Your task to perform on an android device: turn pop-ups off in chrome Image 0: 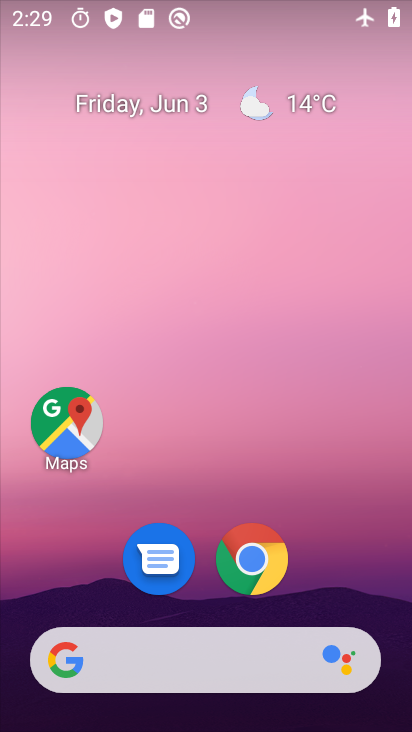
Step 0: click (254, 580)
Your task to perform on an android device: turn pop-ups off in chrome Image 1: 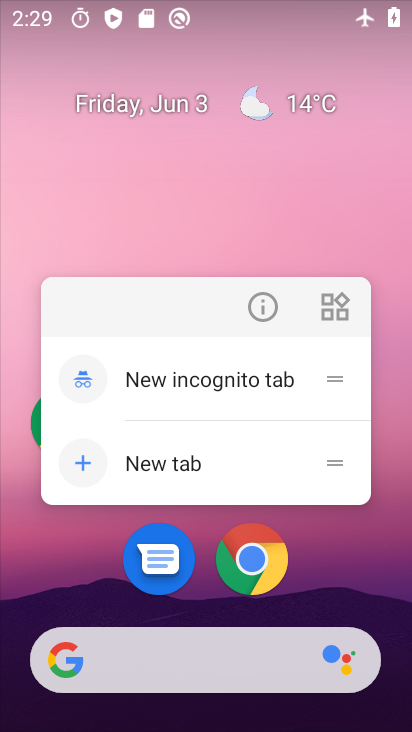
Step 1: click (245, 550)
Your task to perform on an android device: turn pop-ups off in chrome Image 2: 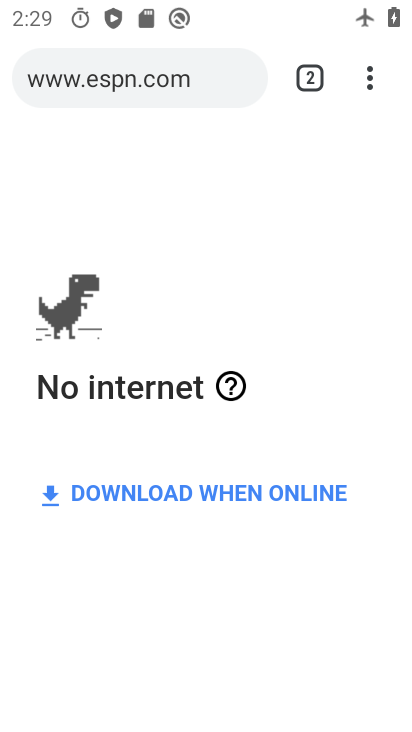
Step 2: drag from (370, 77) to (79, 613)
Your task to perform on an android device: turn pop-ups off in chrome Image 3: 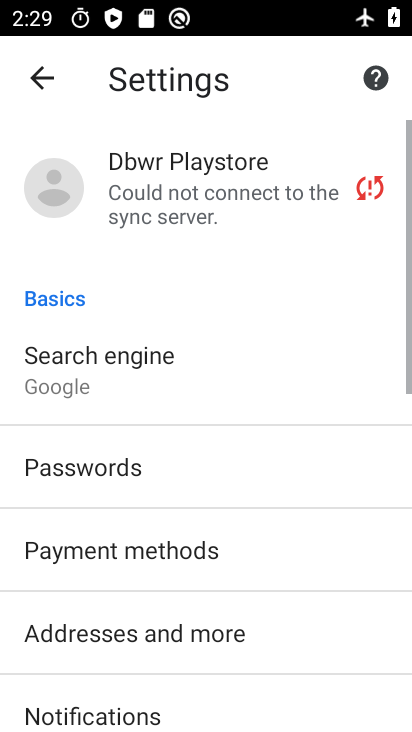
Step 3: drag from (88, 618) to (38, 68)
Your task to perform on an android device: turn pop-ups off in chrome Image 4: 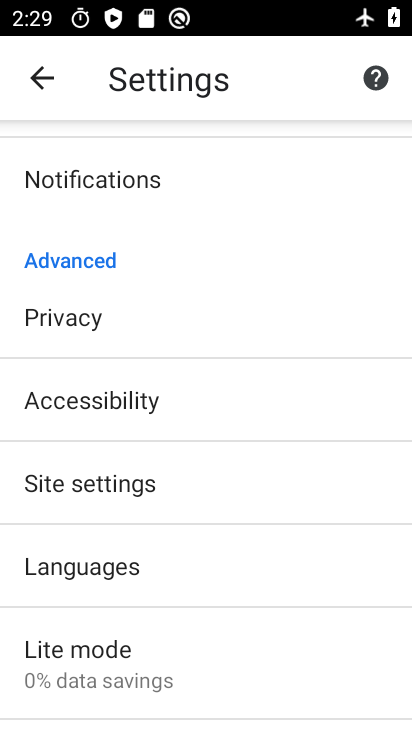
Step 4: click (101, 494)
Your task to perform on an android device: turn pop-ups off in chrome Image 5: 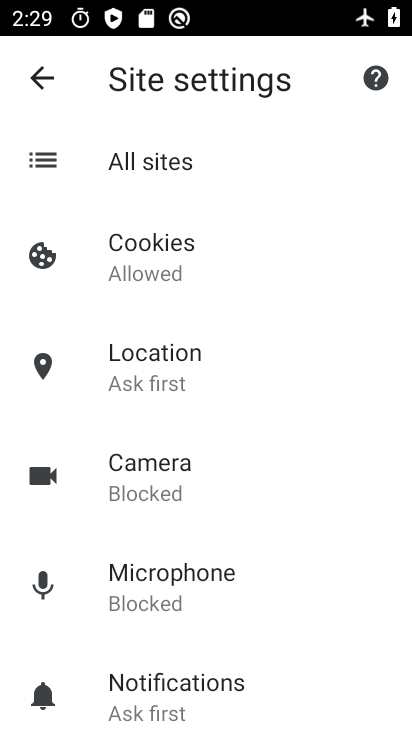
Step 5: drag from (170, 635) to (129, 147)
Your task to perform on an android device: turn pop-ups off in chrome Image 6: 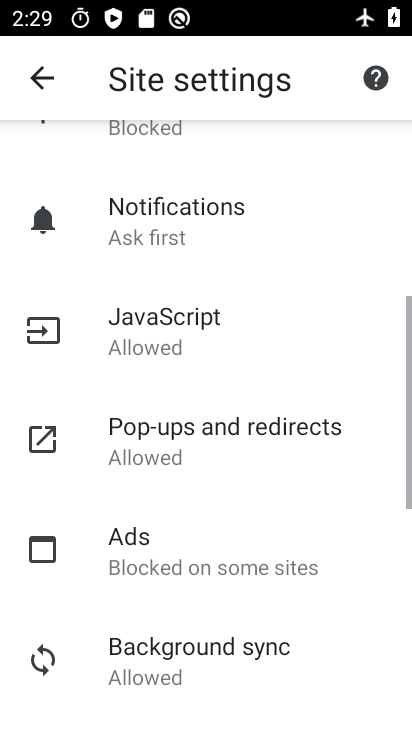
Step 6: click (107, 462)
Your task to perform on an android device: turn pop-ups off in chrome Image 7: 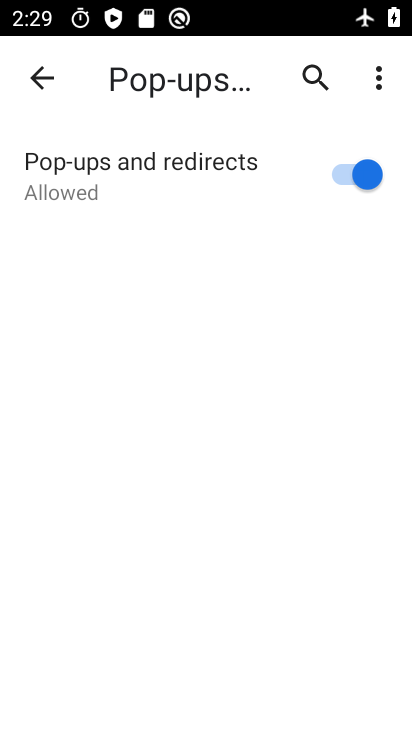
Step 7: click (367, 168)
Your task to perform on an android device: turn pop-ups off in chrome Image 8: 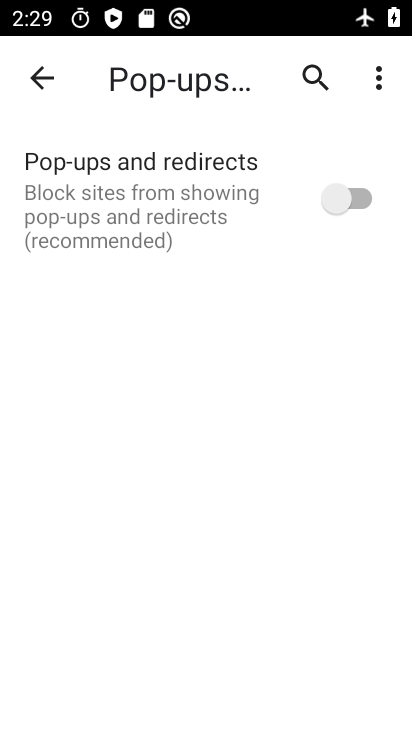
Step 8: task complete